Your task to perform on an android device: Open my contact list Image 0: 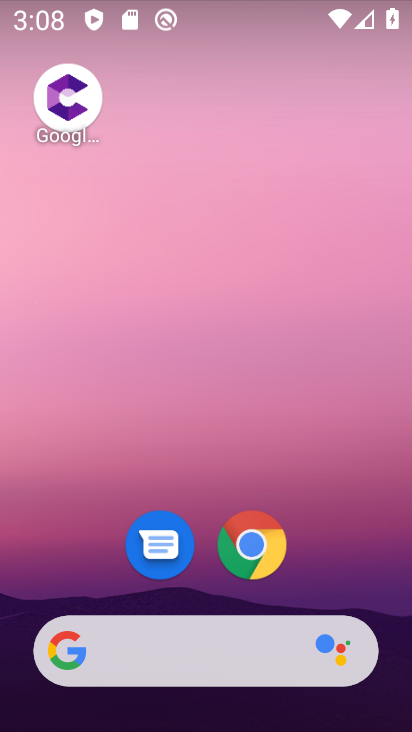
Step 0: drag from (396, 629) to (299, 100)
Your task to perform on an android device: Open my contact list Image 1: 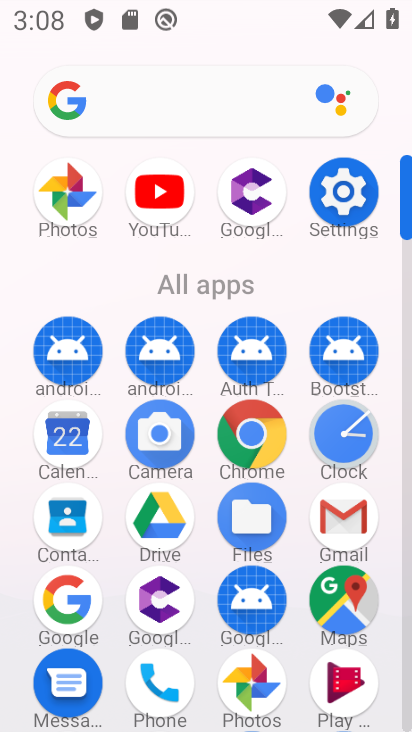
Step 1: click (405, 705)
Your task to perform on an android device: Open my contact list Image 2: 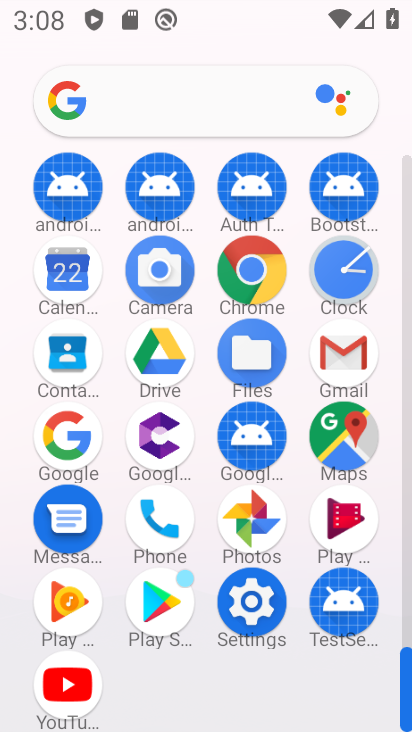
Step 2: click (156, 518)
Your task to perform on an android device: Open my contact list Image 3: 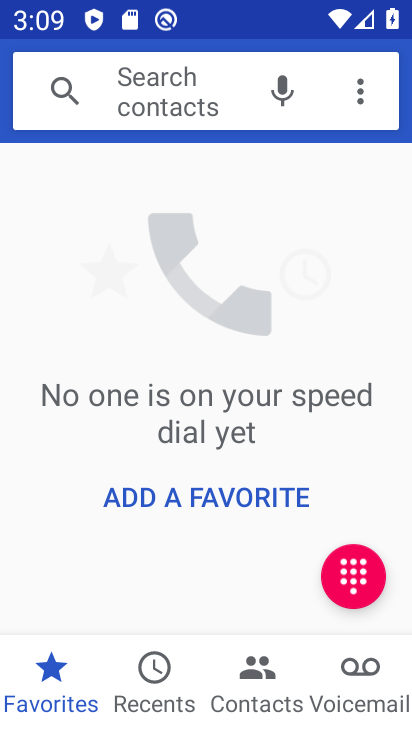
Step 3: click (250, 664)
Your task to perform on an android device: Open my contact list Image 4: 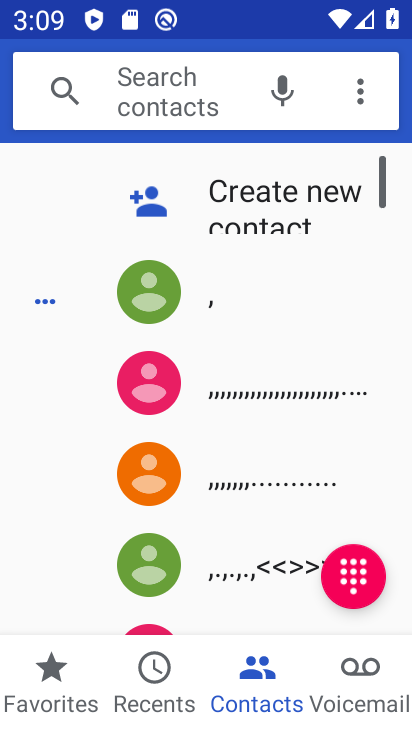
Step 4: task complete